Your task to perform on an android device: Open notification settings Image 0: 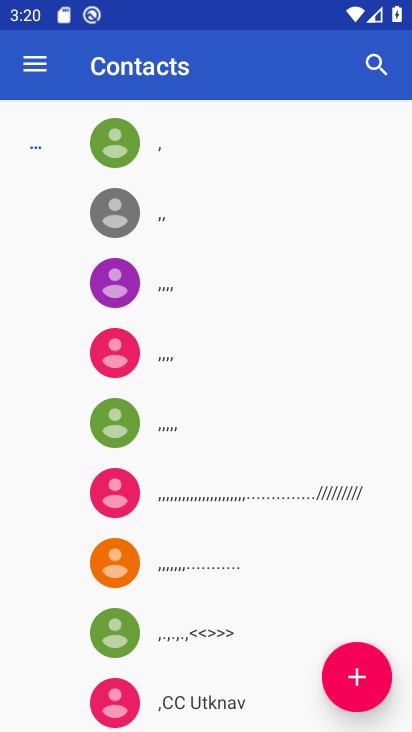
Step 0: press home button
Your task to perform on an android device: Open notification settings Image 1: 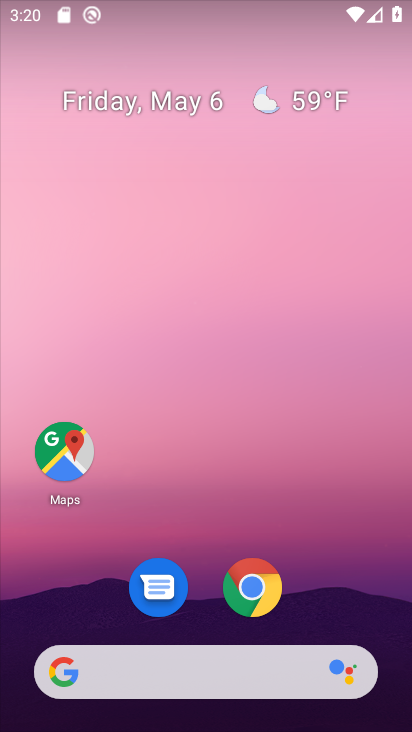
Step 1: drag from (316, 503) to (297, 71)
Your task to perform on an android device: Open notification settings Image 2: 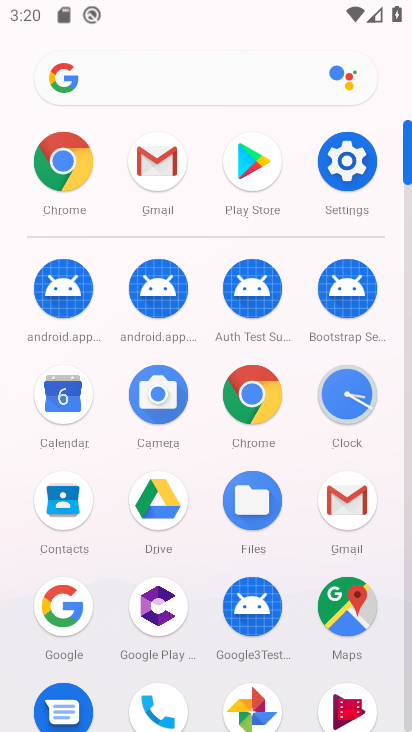
Step 2: click (338, 162)
Your task to perform on an android device: Open notification settings Image 3: 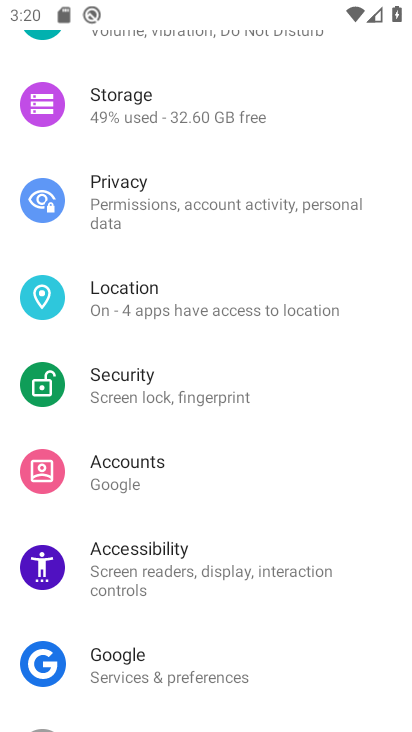
Step 3: drag from (227, 165) to (231, 647)
Your task to perform on an android device: Open notification settings Image 4: 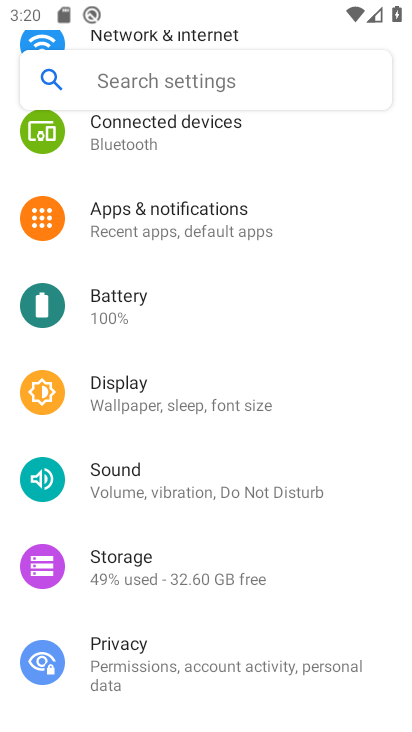
Step 4: click (219, 210)
Your task to perform on an android device: Open notification settings Image 5: 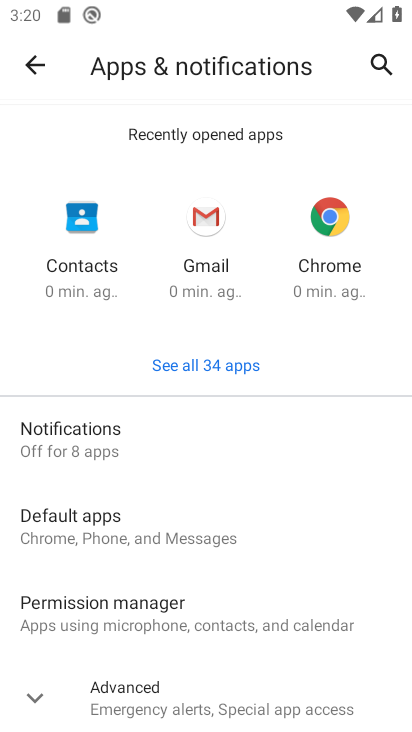
Step 5: click (106, 427)
Your task to perform on an android device: Open notification settings Image 6: 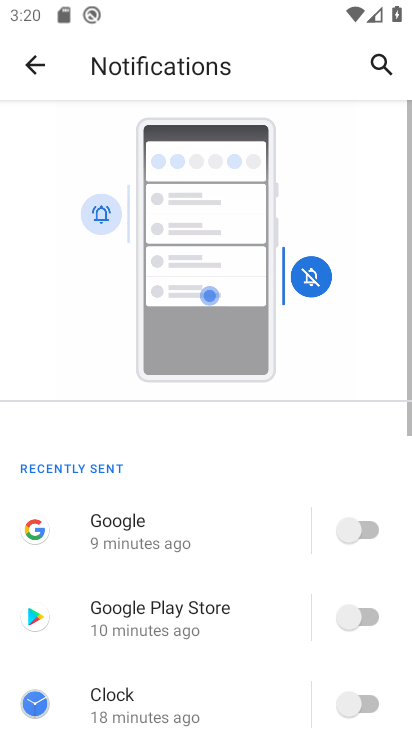
Step 6: task complete